Your task to perform on an android device: change timer sound Image 0: 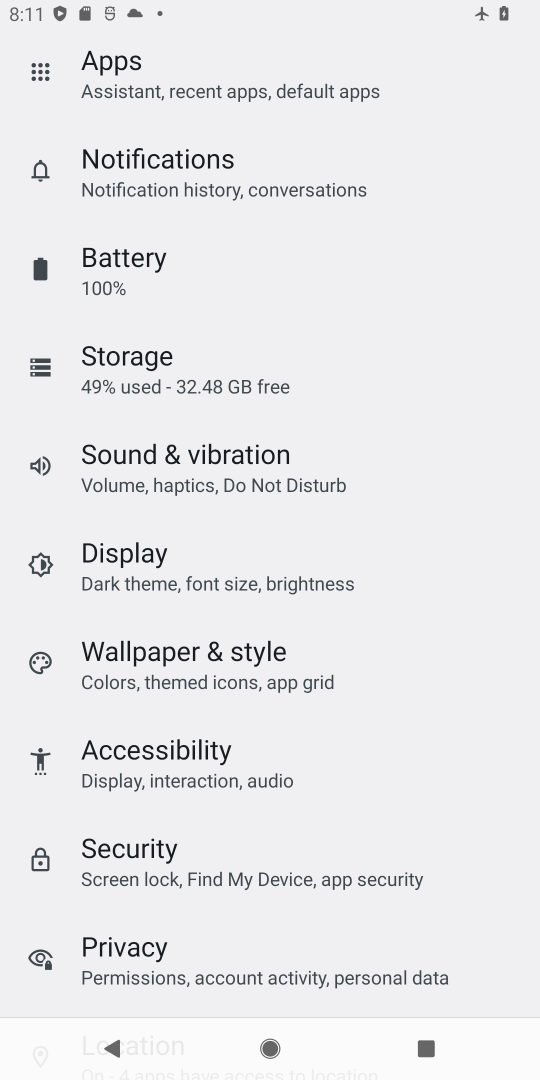
Step 0: press home button
Your task to perform on an android device: change timer sound Image 1: 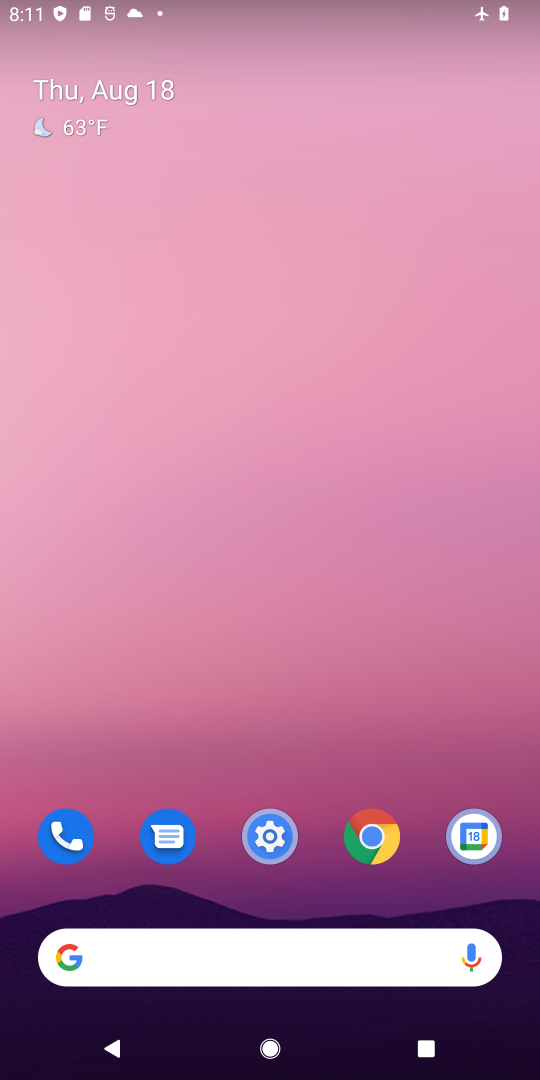
Step 1: drag from (429, 720) to (415, 62)
Your task to perform on an android device: change timer sound Image 2: 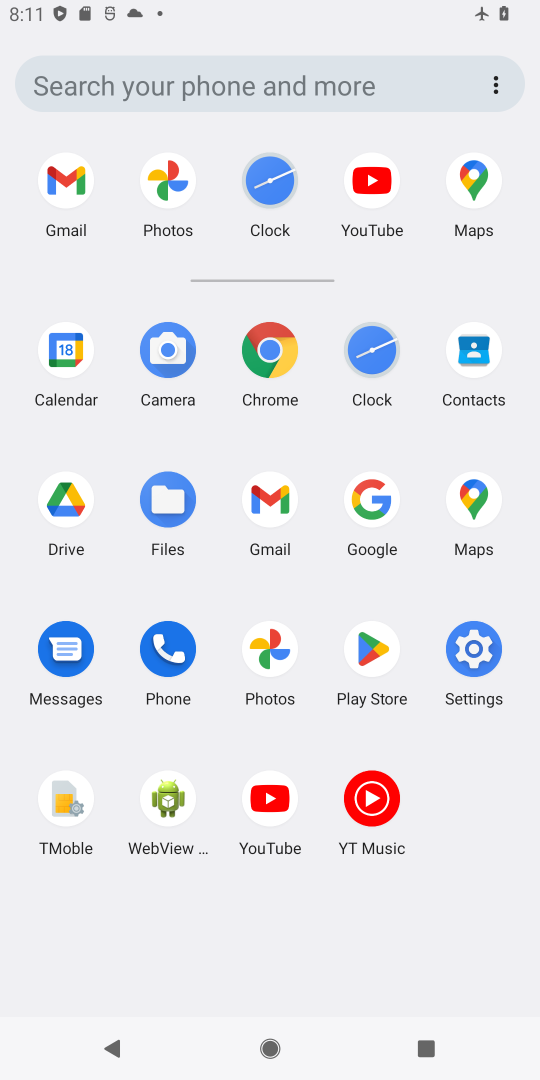
Step 2: click (382, 347)
Your task to perform on an android device: change timer sound Image 3: 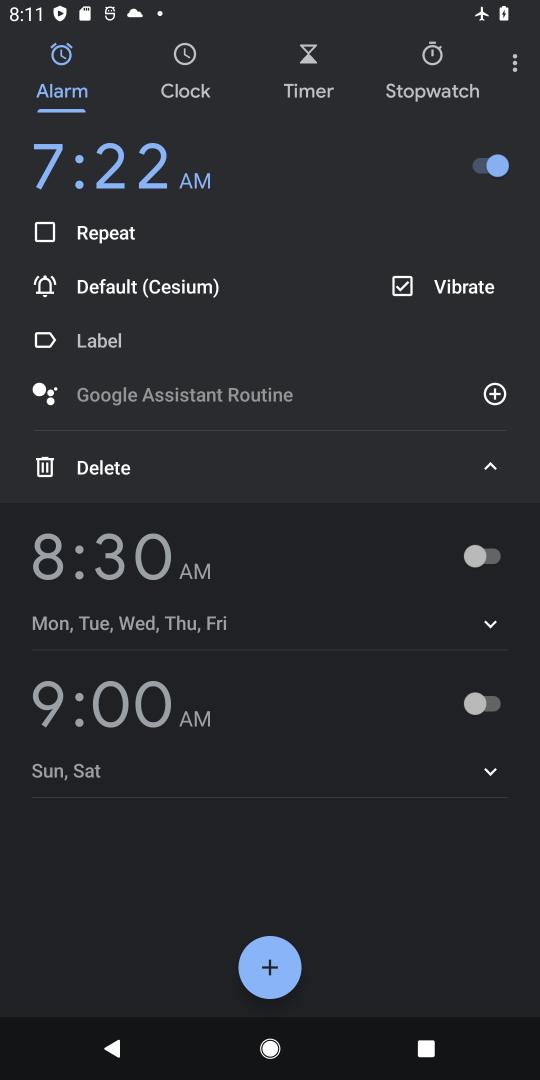
Step 3: click (522, 60)
Your task to perform on an android device: change timer sound Image 4: 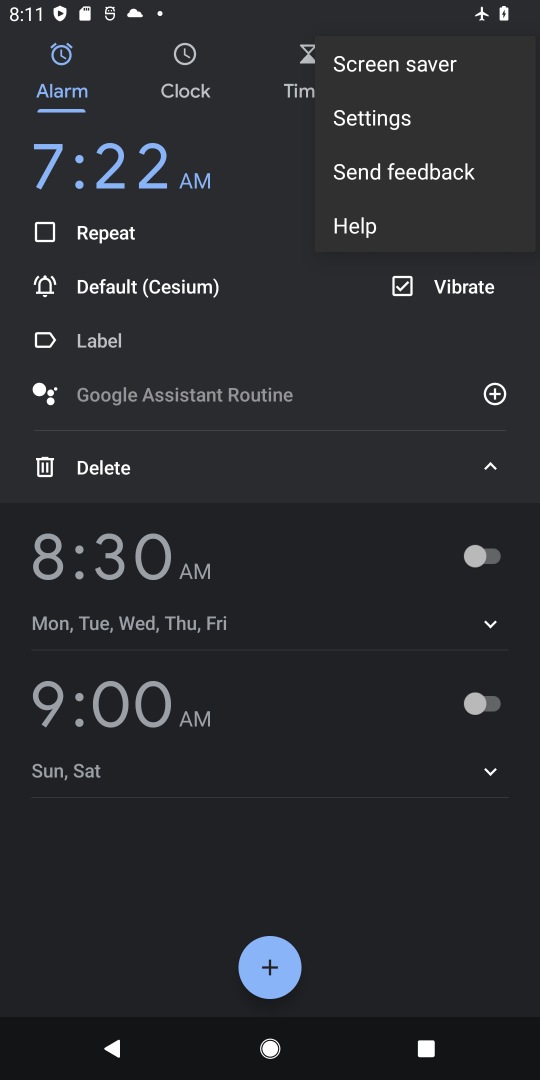
Step 4: click (424, 117)
Your task to perform on an android device: change timer sound Image 5: 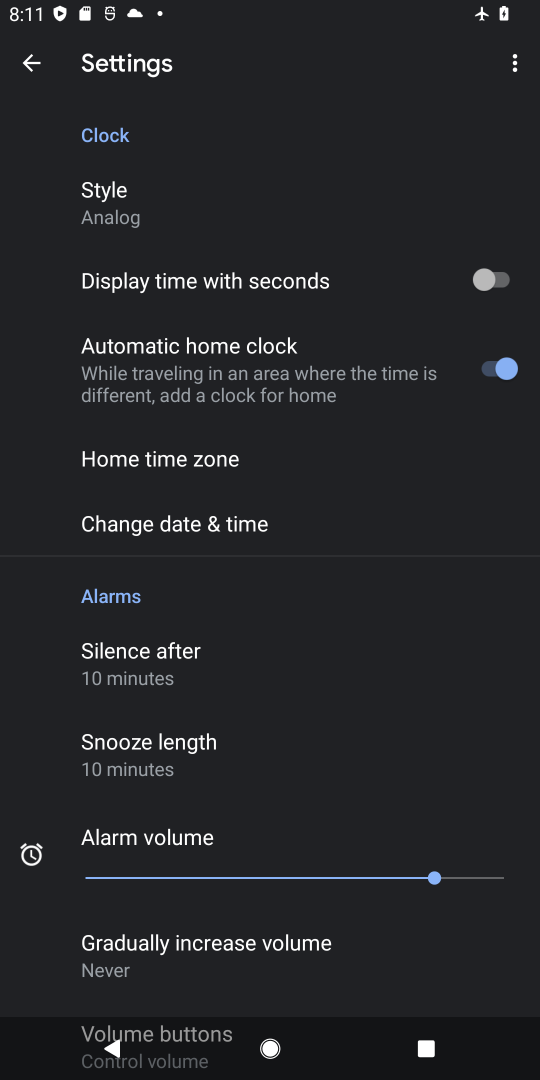
Step 5: drag from (282, 805) to (366, 190)
Your task to perform on an android device: change timer sound Image 6: 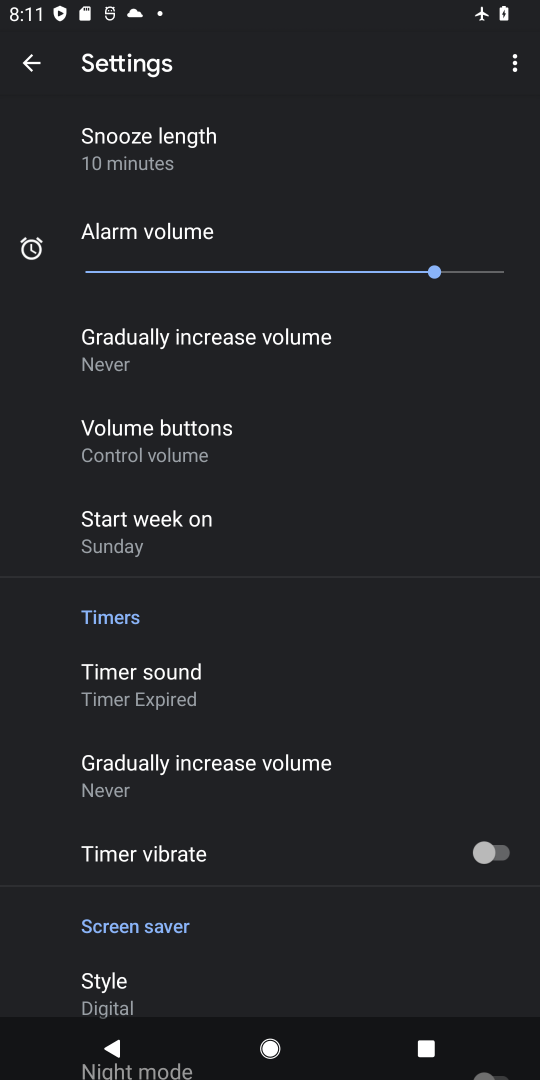
Step 6: click (148, 707)
Your task to perform on an android device: change timer sound Image 7: 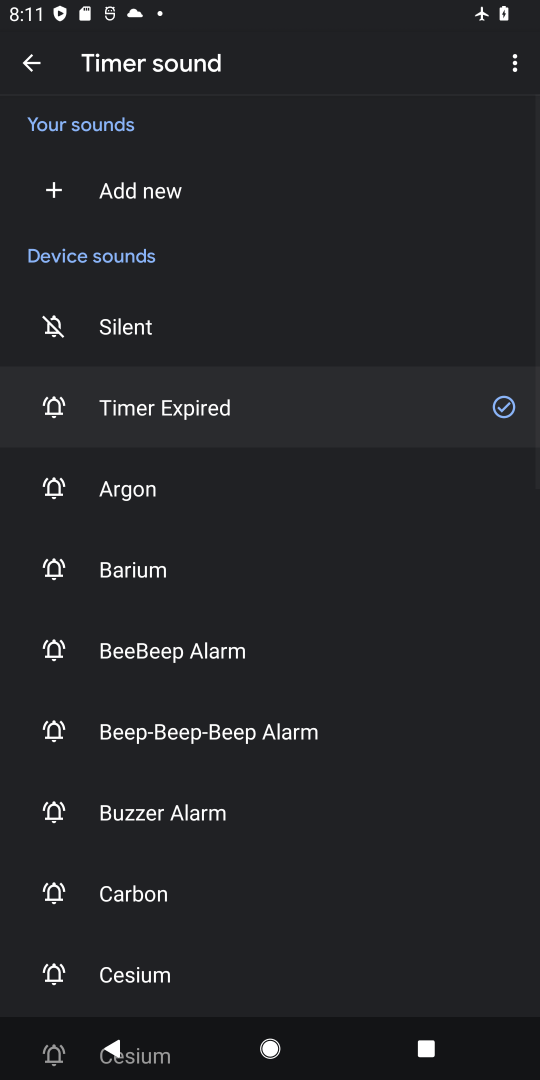
Step 7: click (200, 484)
Your task to perform on an android device: change timer sound Image 8: 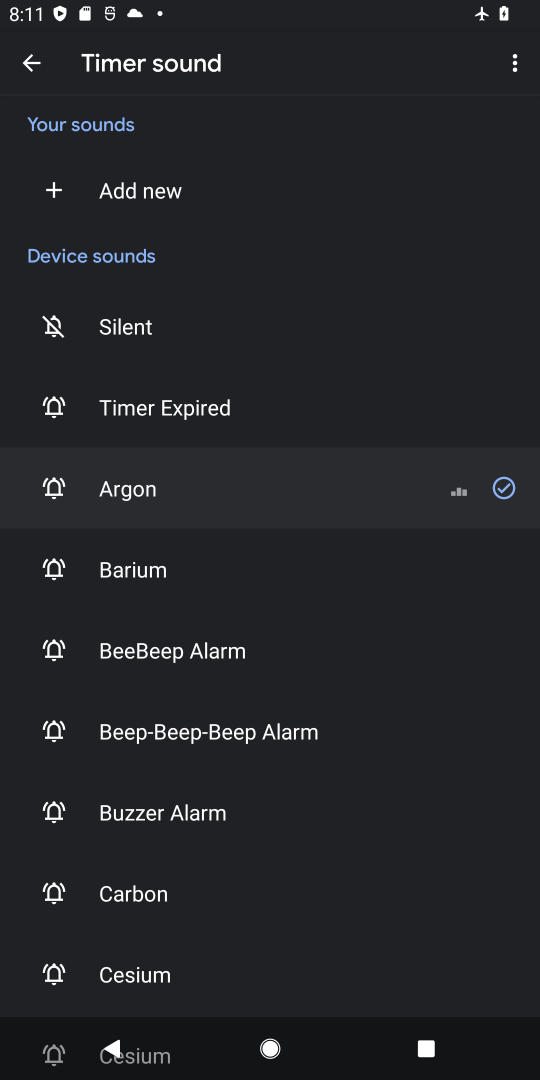
Step 8: task complete